Your task to perform on an android device: Go to internet settings Image 0: 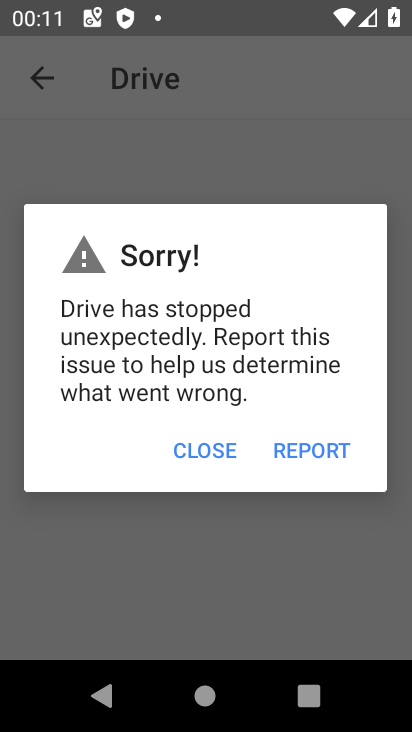
Step 0: drag from (218, 26) to (202, 502)
Your task to perform on an android device: Go to internet settings Image 1: 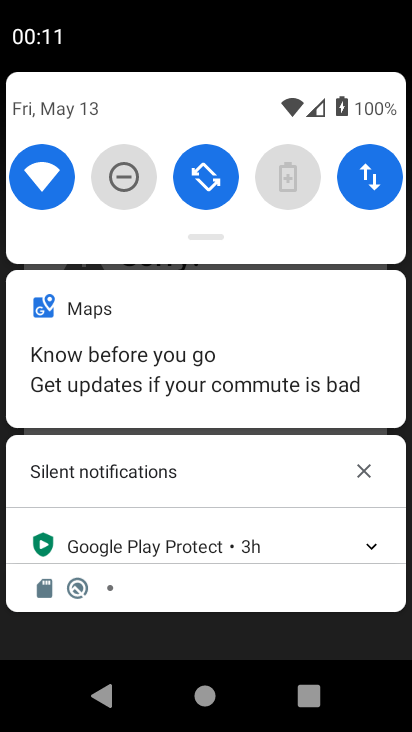
Step 1: click (368, 197)
Your task to perform on an android device: Go to internet settings Image 2: 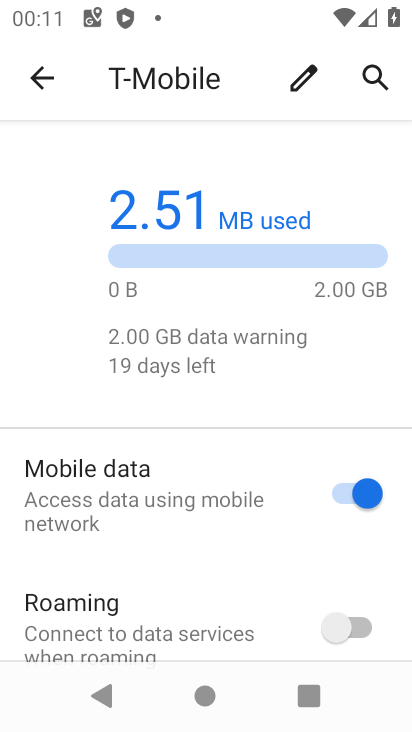
Step 2: task complete